Your task to perform on an android device: allow cookies in the chrome app Image 0: 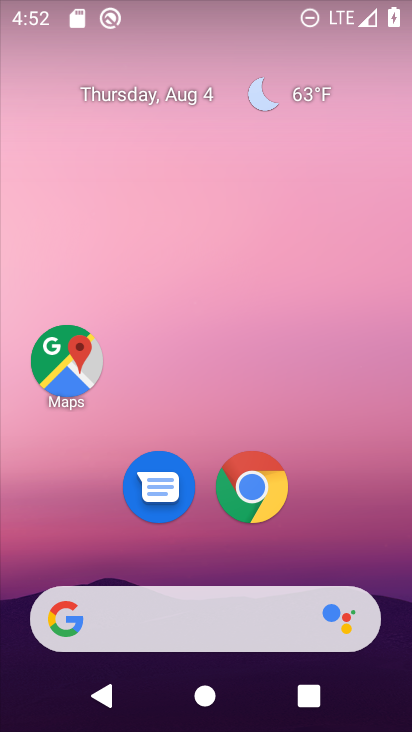
Step 0: click (267, 487)
Your task to perform on an android device: allow cookies in the chrome app Image 1: 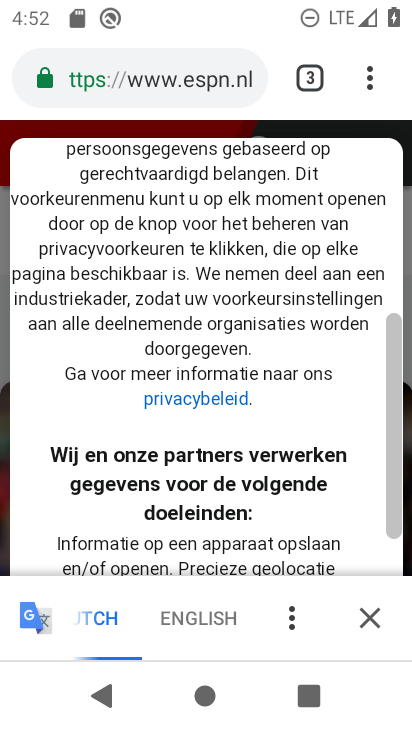
Step 1: drag from (366, 76) to (132, 543)
Your task to perform on an android device: allow cookies in the chrome app Image 2: 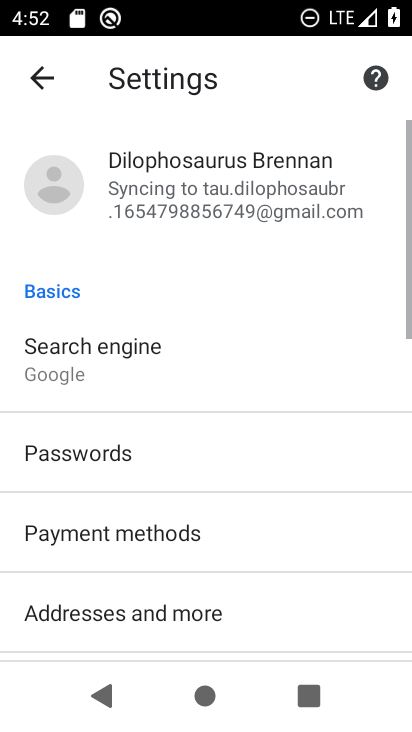
Step 2: drag from (131, 525) to (280, 29)
Your task to perform on an android device: allow cookies in the chrome app Image 3: 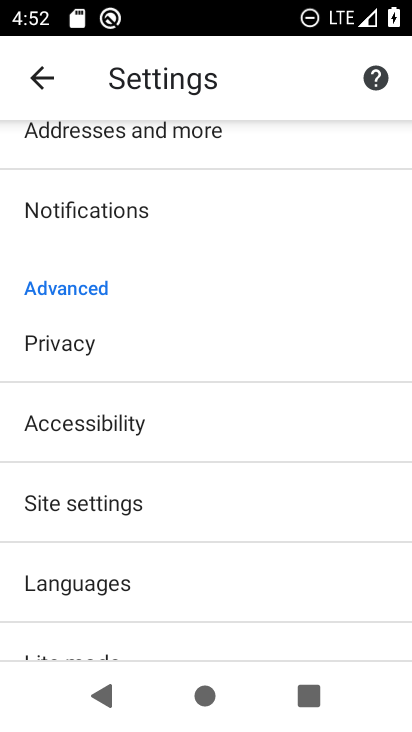
Step 3: click (80, 509)
Your task to perform on an android device: allow cookies in the chrome app Image 4: 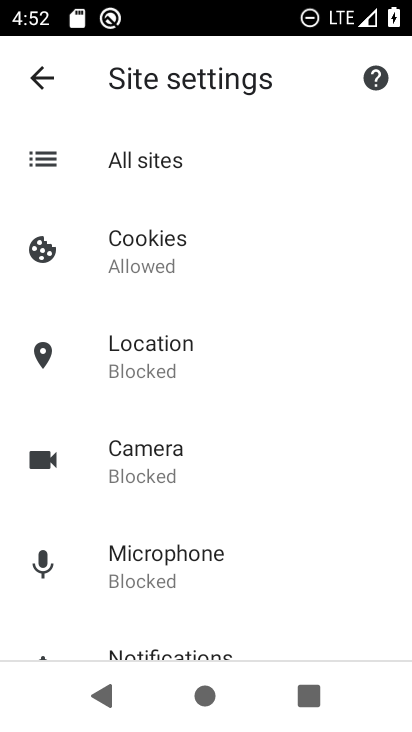
Step 4: click (165, 262)
Your task to perform on an android device: allow cookies in the chrome app Image 5: 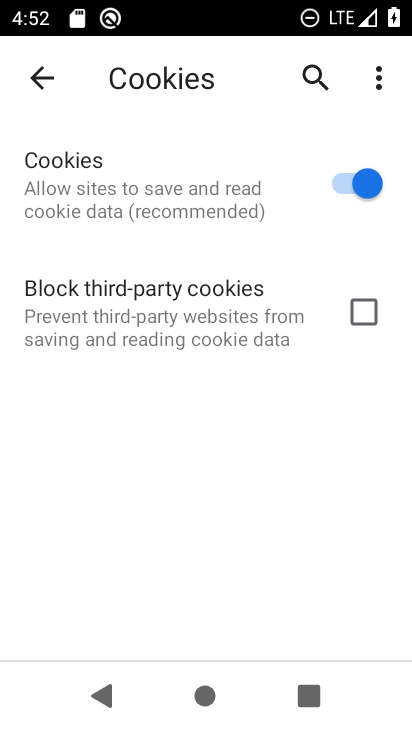
Step 5: task complete